Your task to perform on an android device: turn off sleep mode Image 0: 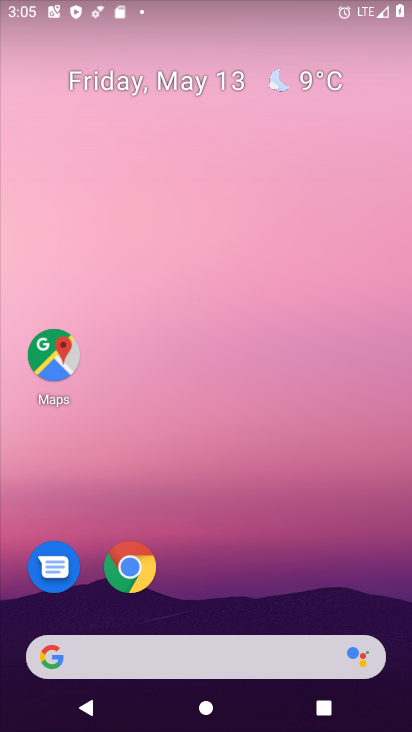
Step 0: drag from (200, 622) to (220, 94)
Your task to perform on an android device: turn off sleep mode Image 1: 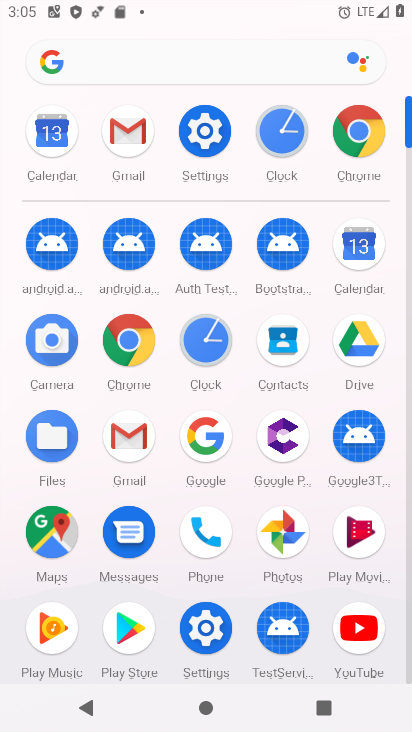
Step 1: click (201, 146)
Your task to perform on an android device: turn off sleep mode Image 2: 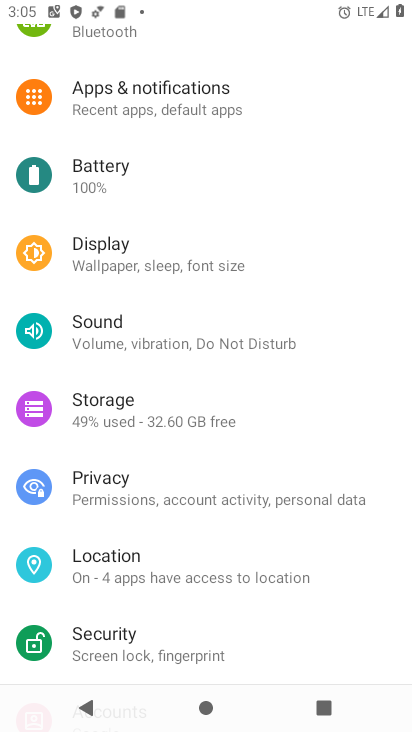
Step 2: drag from (194, 140) to (196, 582)
Your task to perform on an android device: turn off sleep mode Image 3: 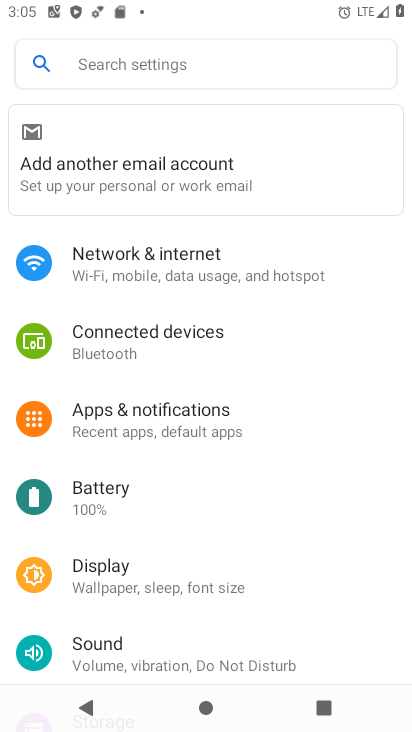
Step 3: click (207, 67)
Your task to perform on an android device: turn off sleep mode Image 4: 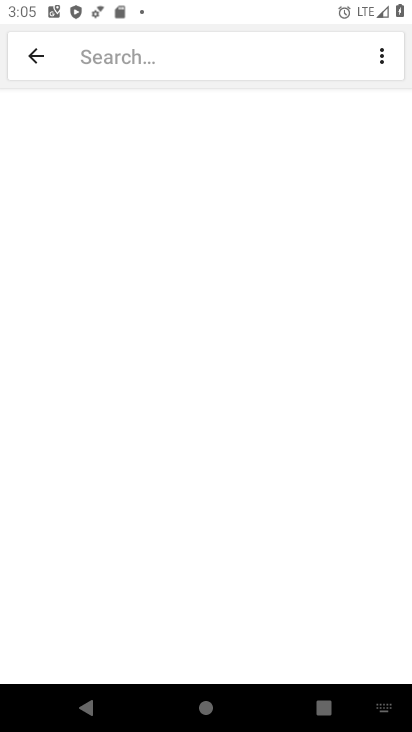
Step 4: type "sleep mode"
Your task to perform on an android device: turn off sleep mode Image 5: 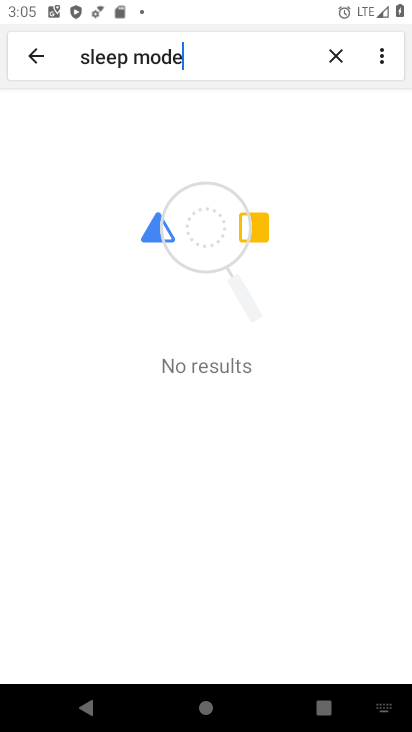
Step 5: task complete